Your task to perform on an android device: open sync settings in chrome Image 0: 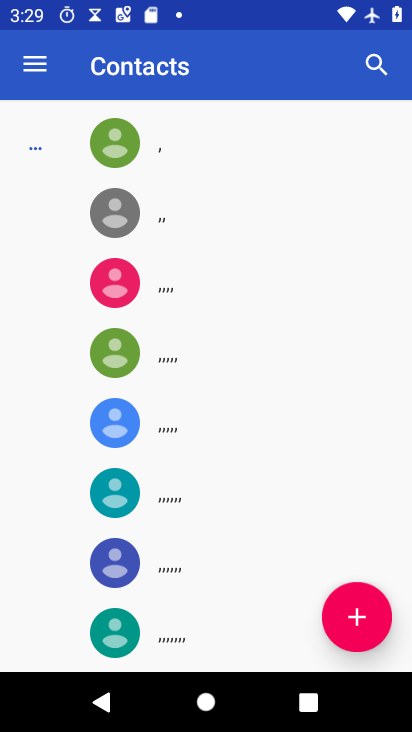
Step 0: press home button
Your task to perform on an android device: open sync settings in chrome Image 1: 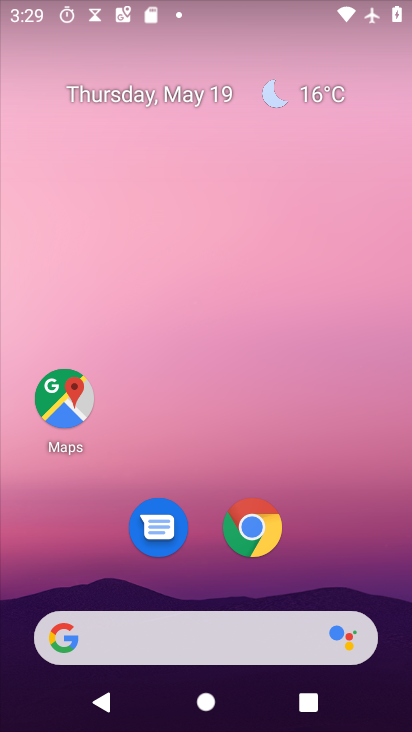
Step 1: click (254, 530)
Your task to perform on an android device: open sync settings in chrome Image 2: 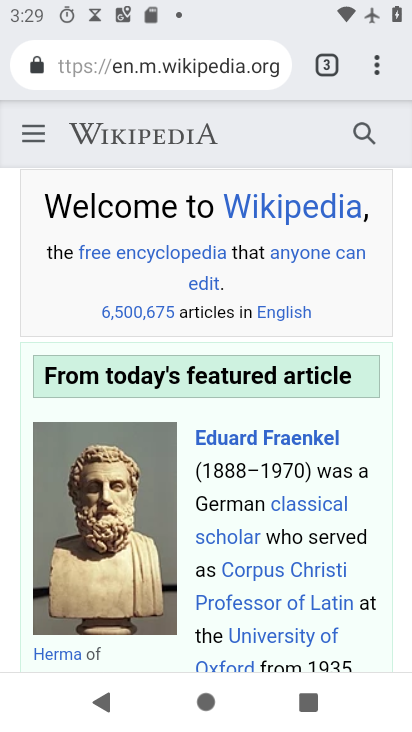
Step 2: click (375, 60)
Your task to perform on an android device: open sync settings in chrome Image 3: 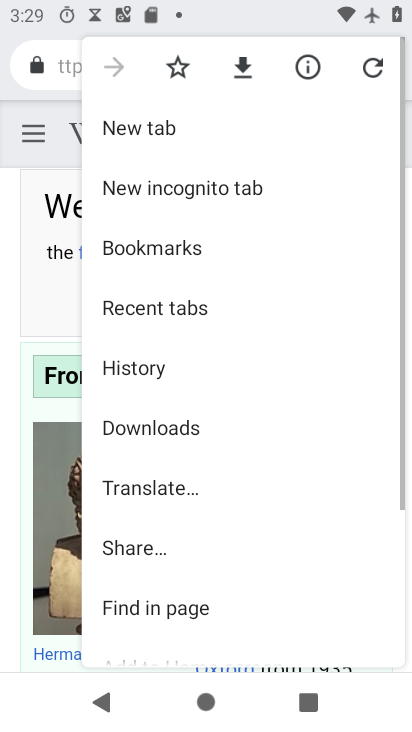
Step 3: drag from (252, 561) to (195, 111)
Your task to perform on an android device: open sync settings in chrome Image 4: 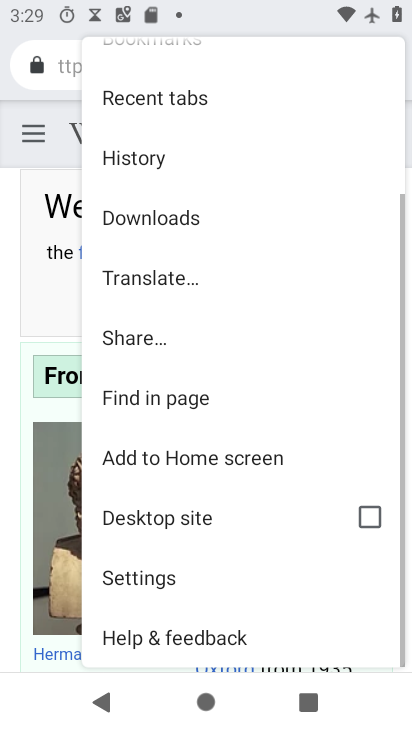
Step 4: click (224, 577)
Your task to perform on an android device: open sync settings in chrome Image 5: 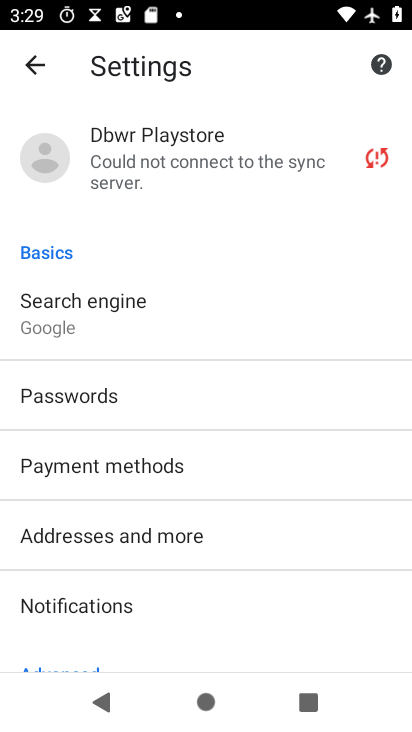
Step 5: drag from (269, 562) to (224, 187)
Your task to perform on an android device: open sync settings in chrome Image 6: 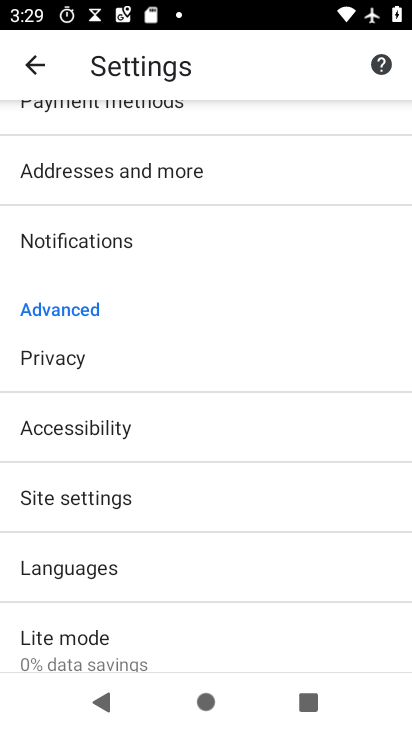
Step 6: click (149, 490)
Your task to perform on an android device: open sync settings in chrome Image 7: 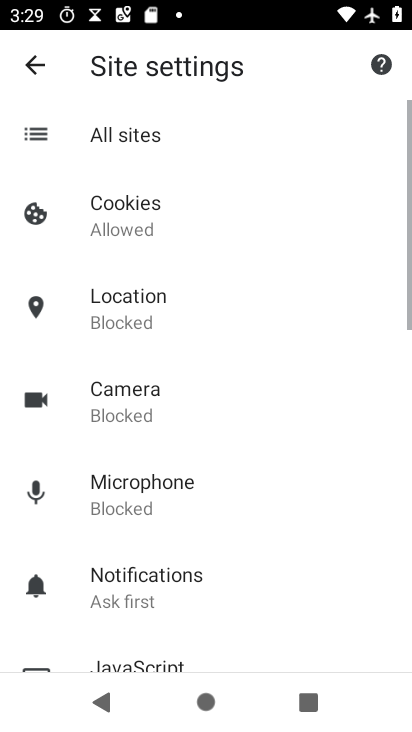
Step 7: drag from (245, 541) to (234, 132)
Your task to perform on an android device: open sync settings in chrome Image 8: 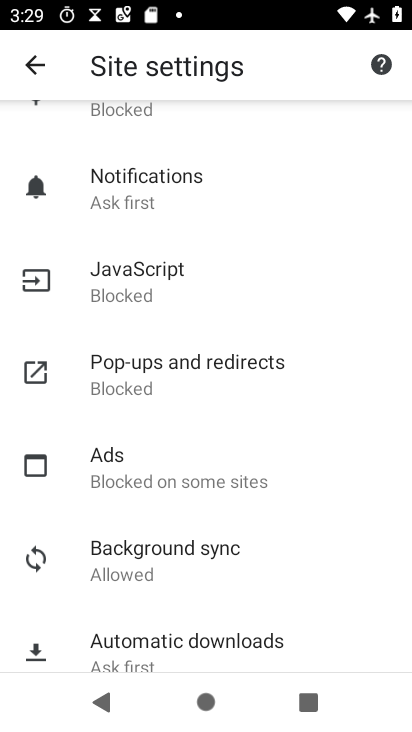
Step 8: click (245, 559)
Your task to perform on an android device: open sync settings in chrome Image 9: 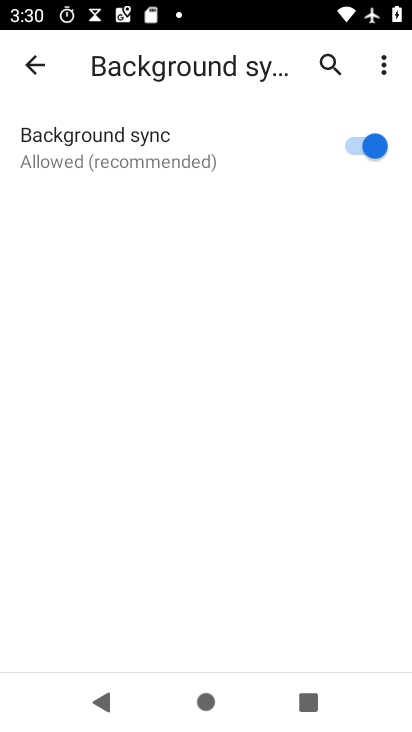
Step 9: task complete